Your task to perform on an android device: Open the map Image 0: 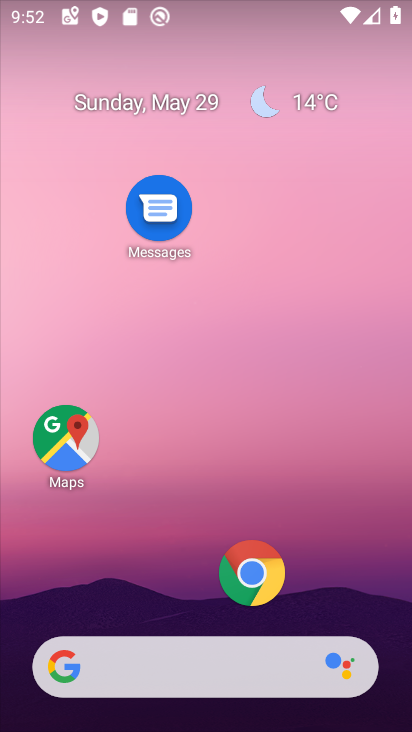
Step 0: click (49, 469)
Your task to perform on an android device: Open the map Image 1: 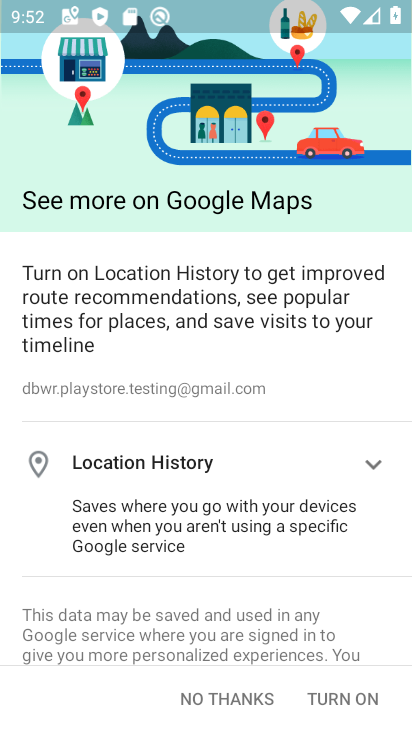
Step 1: click (349, 710)
Your task to perform on an android device: Open the map Image 2: 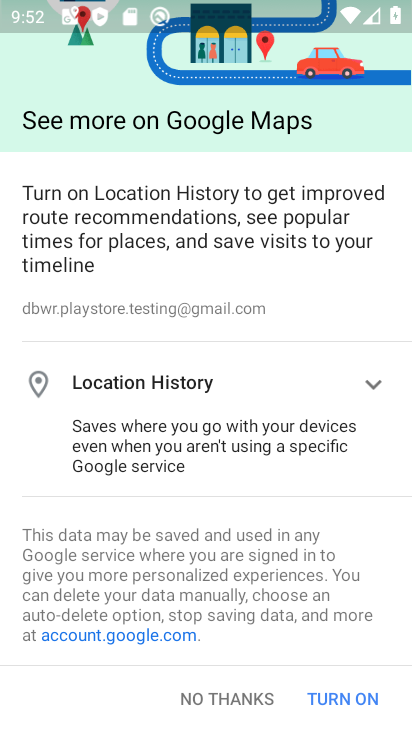
Step 2: click (349, 710)
Your task to perform on an android device: Open the map Image 3: 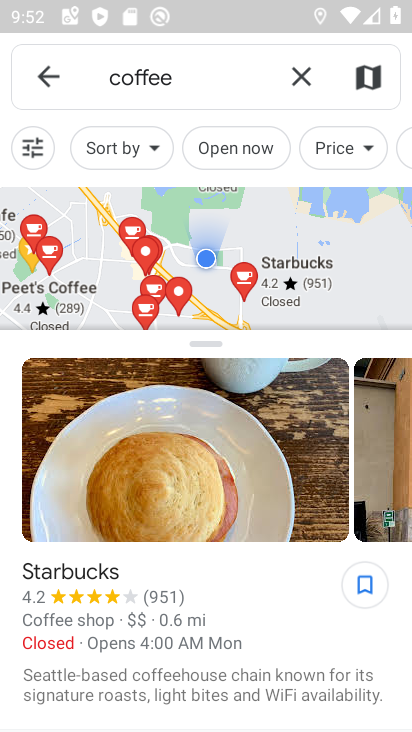
Step 3: task complete